Your task to perform on an android device: star an email in the gmail app Image 0: 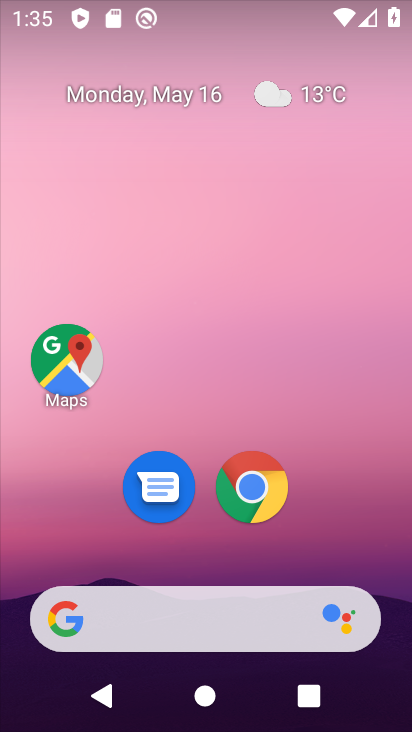
Step 0: drag from (364, 546) to (228, 24)
Your task to perform on an android device: star an email in the gmail app Image 1: 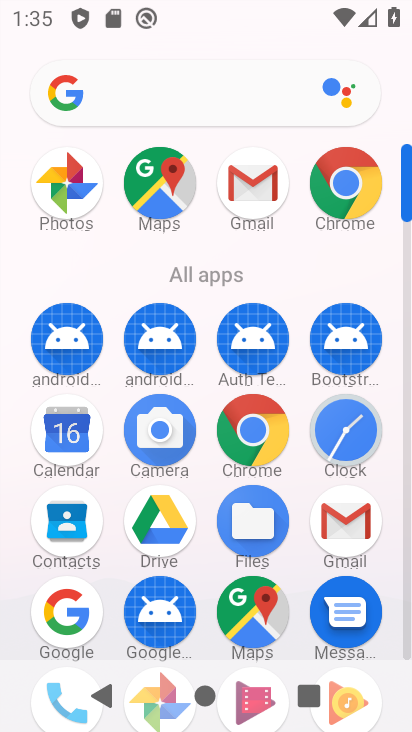
Step 1: drag from (8, 550) to (20, 200)
Your task to perform on an android device: star an email in the gmail app Image 2: 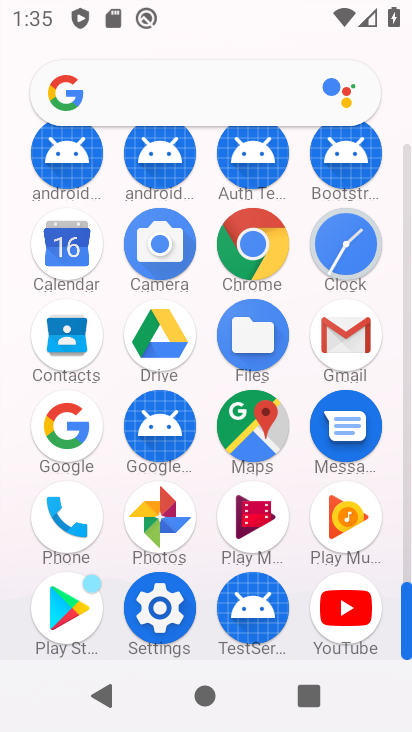
Step 2: click (253, 238)
Your task to perform on an android device: star an email in the gmail app Image 3: 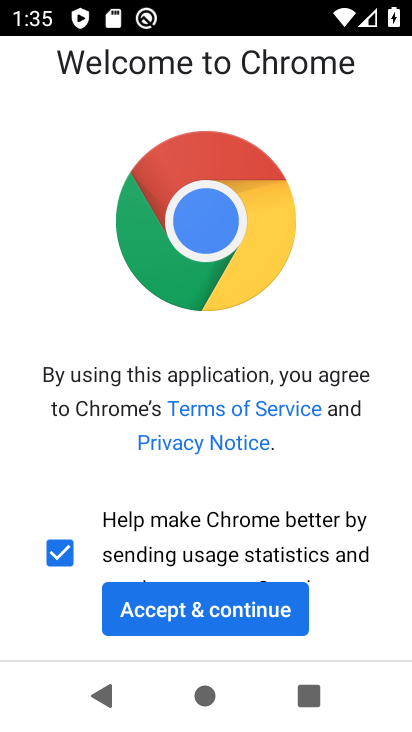
Step 3: click (248, 621)
Your task to perform on an android device: star an email in the gmail app Image 4: 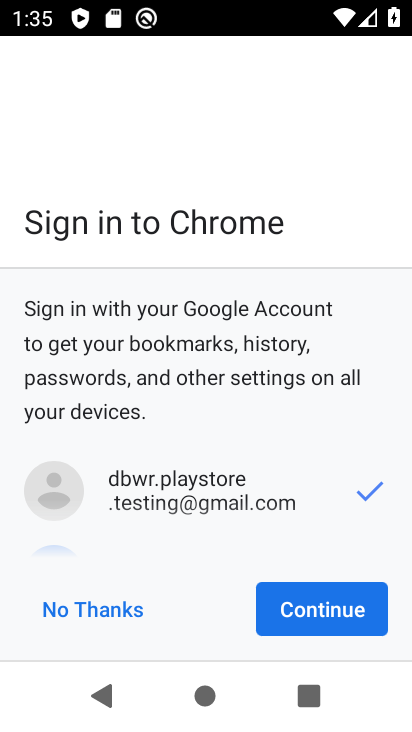
Step 4: click (333, 604)
Your task to perform on an android device: star an email in the gmail app Image 5: 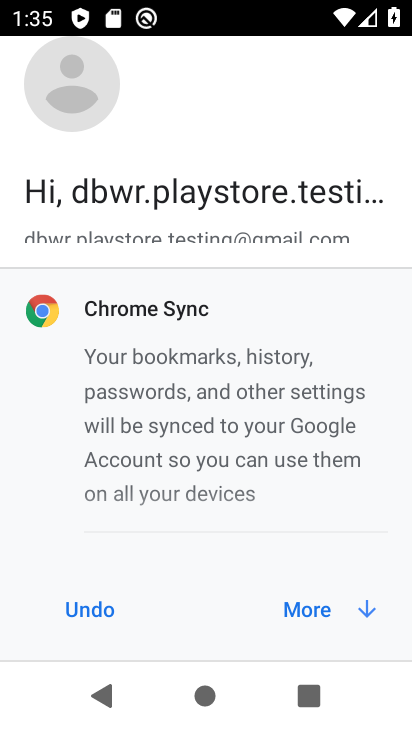
Step 5: click (325, 604)
Your task to perform on an android device: star an email in the gmail app Image 6: 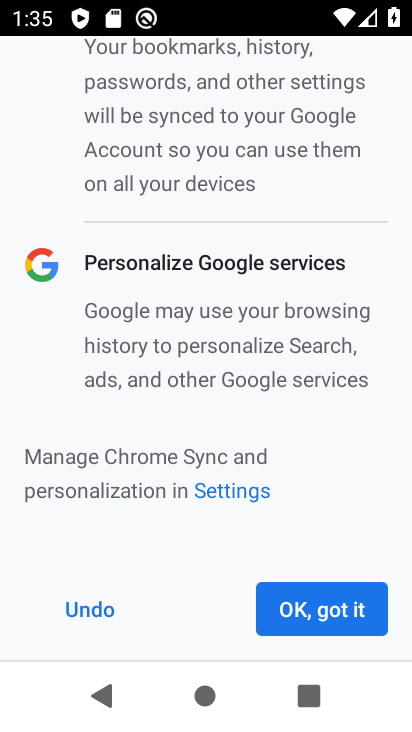
Step 6: click (325, 604)
Your task to perform on an android device: star an email in the gmail app Image 7: 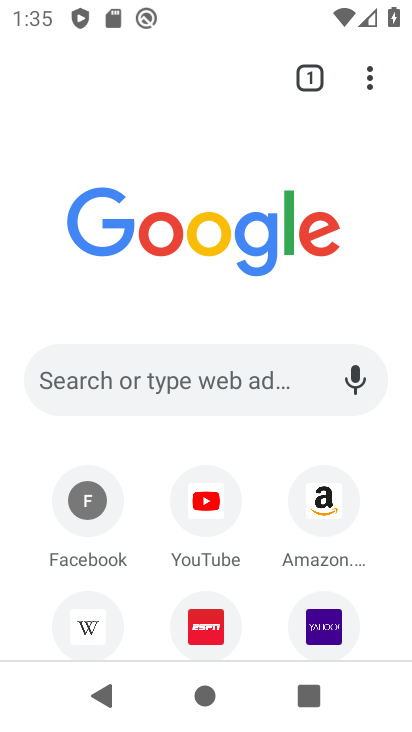
Step 7: press back button
Your task to perform on an android device: star an email in the gmail app Image 8: 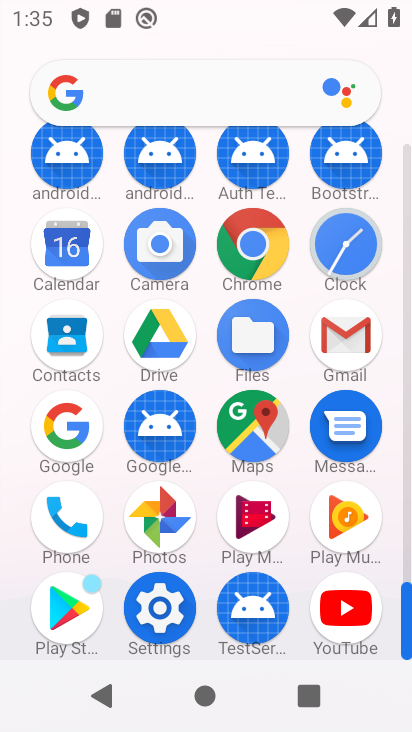
Step 8: press back button
Your task to perform on an android device: star an email in the gmail app Image 9: 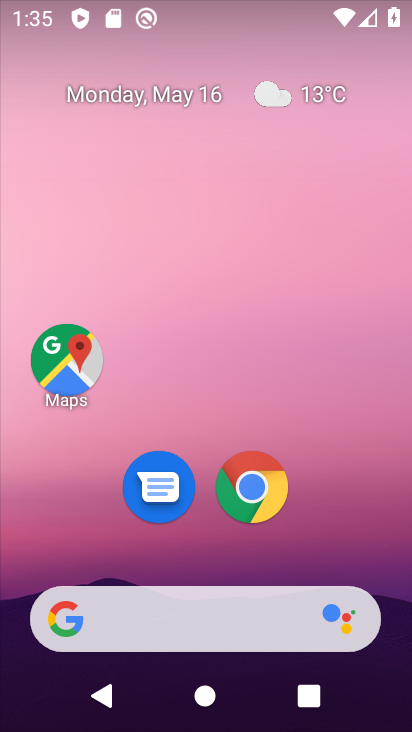
Step 9: drag from (332, 523) to (290, 0)
Your task to perform on an android device: star an email in the gmail app Image 10: 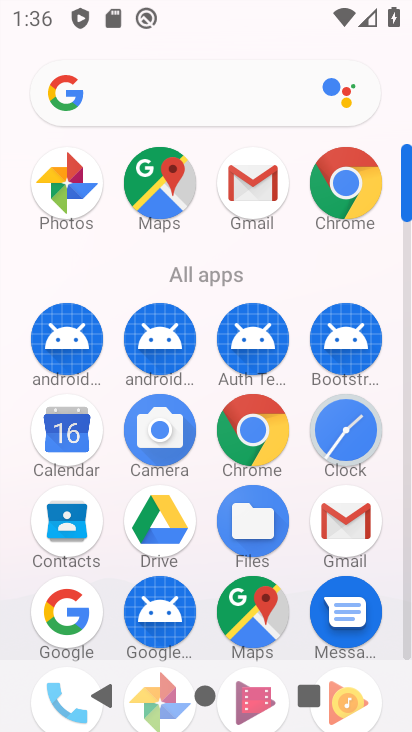
Step 10: drag from (0, 555) to (39, 168)
Your task to perform on an android device: star an email in the gmail app Image 11: 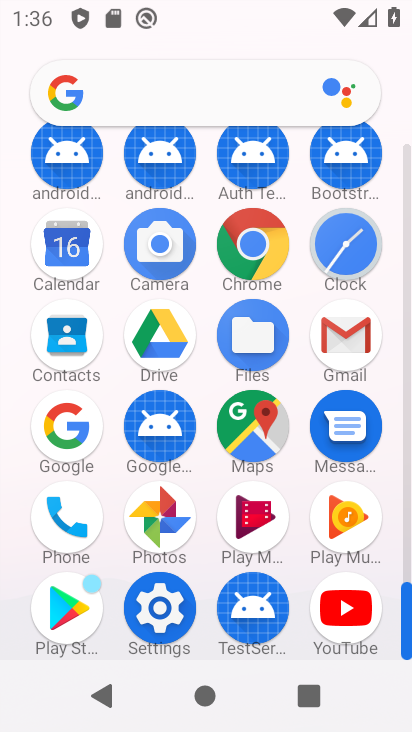
Step 11: click (337, 333)
Your task to perform on an android device: star an email in the gmail app Image 12: 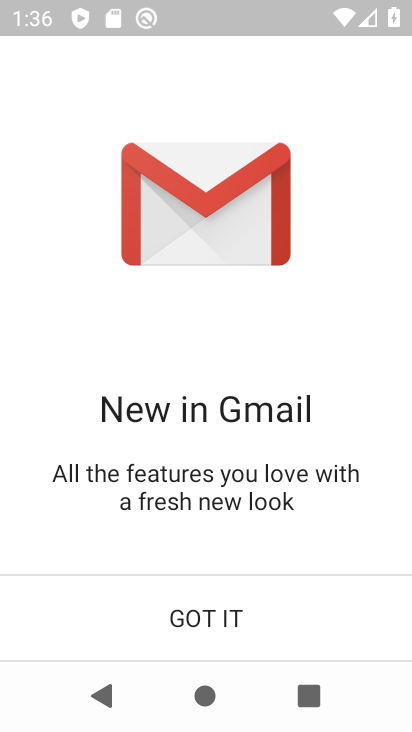
Step 12: click (225, 631)
Your task to perform on an android device: star an email in the gmail app Image 13: 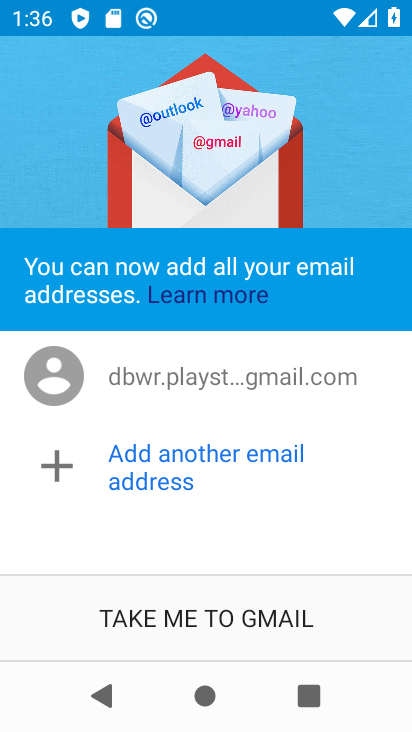
Step 13: click (225, 630)
Your task to perform on an android device: star an email in the gmail app Image 14: 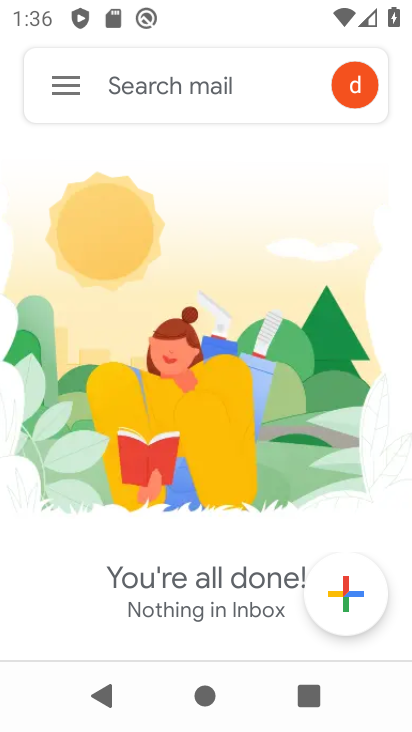
Step 14: click (66, 90)
Your task to perform on an android device: star an email in the gmail app Image 15: 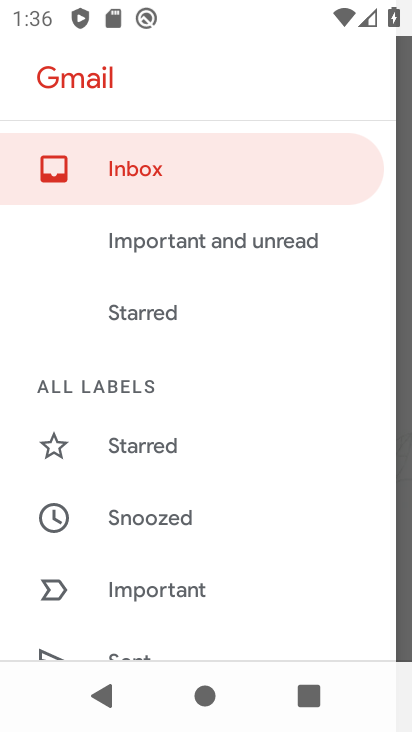
Step 15: drag from (239, 583) to (223, 126)
Your task to perform on an android device: star an email in the gmail app Image 16: 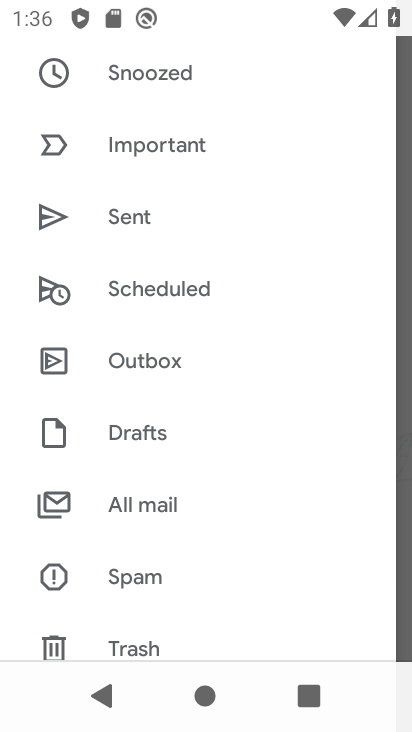
Step 16: drag from (215, 195) to (257, 486)
Your task to perform on an android device: star an email in the gmail app Image 17: 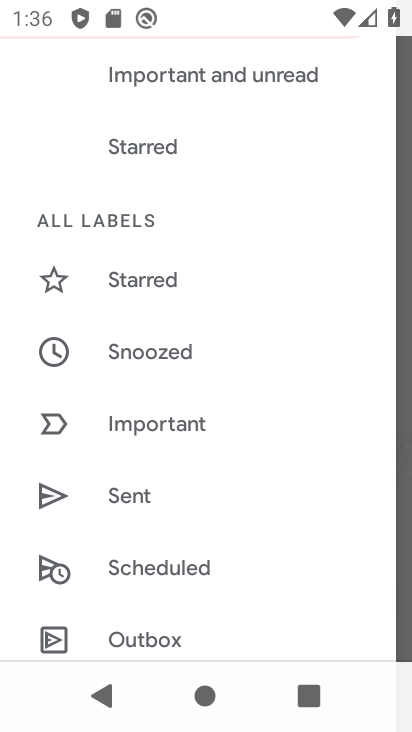
Step 17: click (157, 277)
Your task to perform on an android device: star an email in the gmail app Image 18: 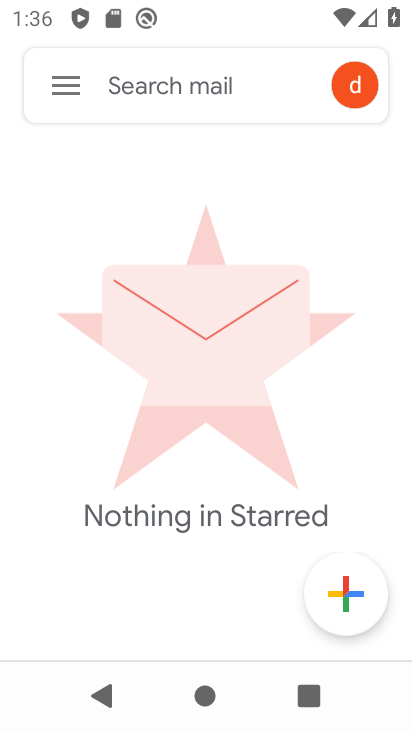
Step 18: click (65, 78)
Your task to perform on an android device: star an email in the gmail app Image 19: 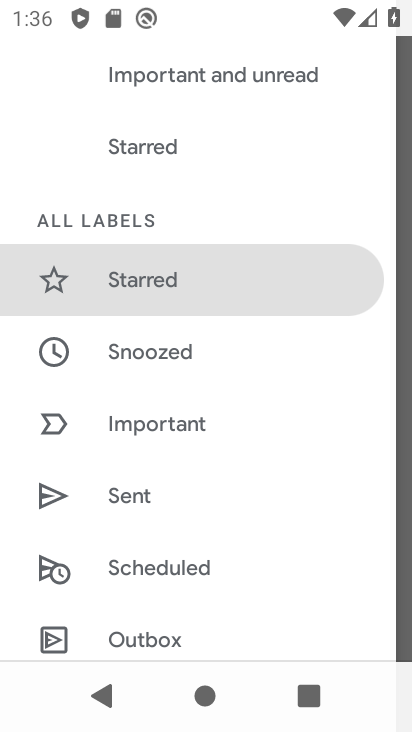
Step 19: click (185, 283)
Your task to perform on an android device: star an email in the gmail app Image 20: 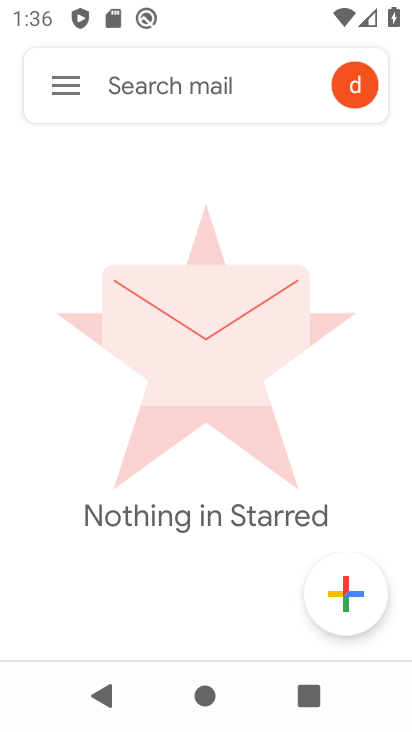
Step 20: task complete